Your task to perform on an android device: turn on notifications settings in the gmail app Image 0: 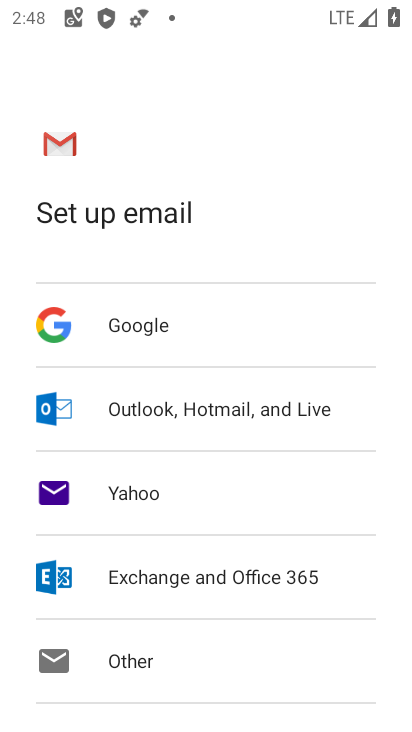
Step 0: press back button
Your task to perform on an android device: turn on notifications settings in the gmail app Image 1: 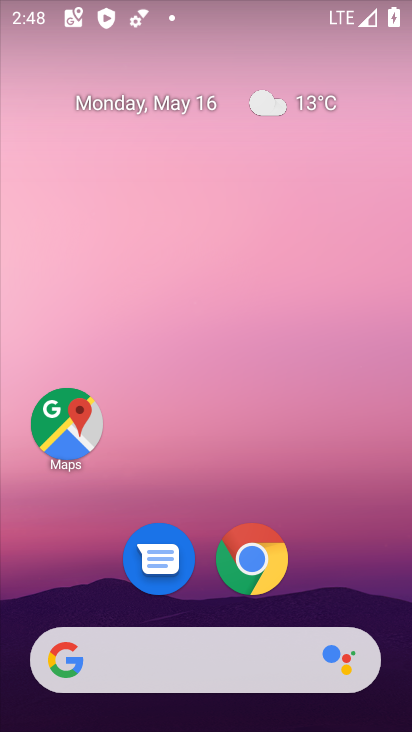
Step 1: drag from (201, 613) to (300, 40)
Your task to perform on an android device: turn on notifications settings in the gmail app Image 2: 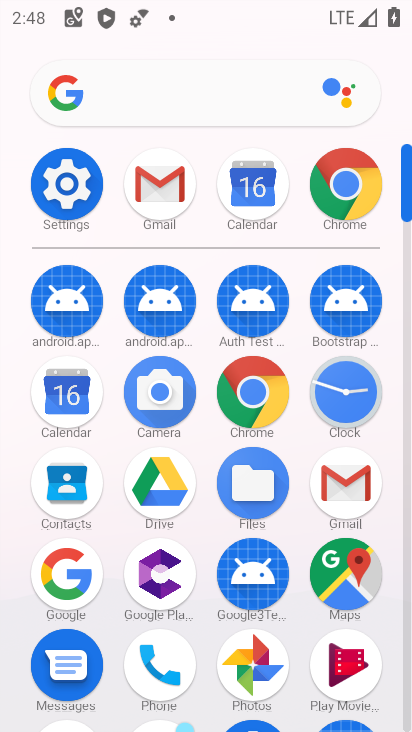
Step 2: click (166, 179)
Your task to perform on an android device: turn on notifications settings in the gmail app Image 3: 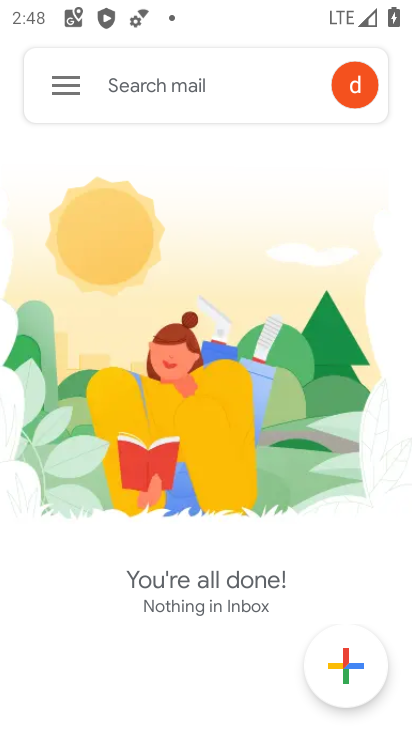
Step 3: press back button
Your task to perform on an android device: turn on notifications settings in the gmail app Image 4: 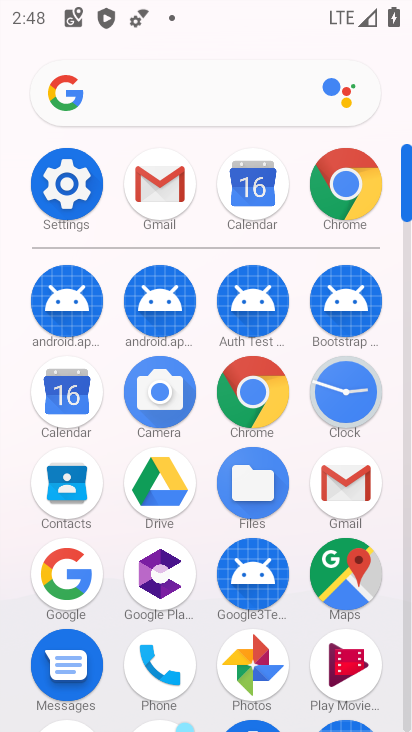
Step 4: click (158, 187)
Your task to perform on an android device: turn on notifications settings in the gmail app Image 5: 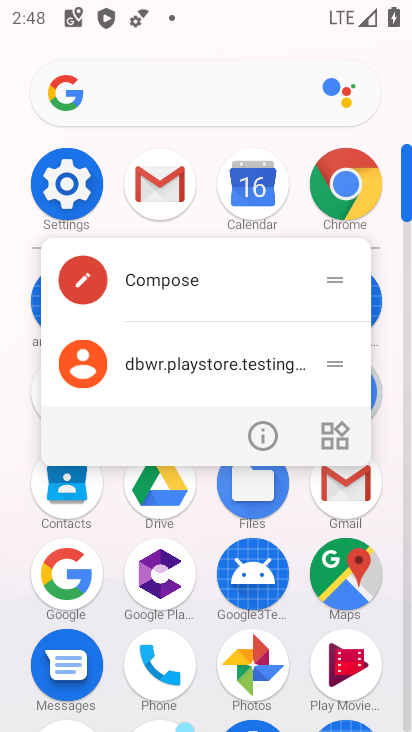
Step 5: click (259, 431)
Your task to perform on an android device: turn on notifications settings in the gmail app Image 6: 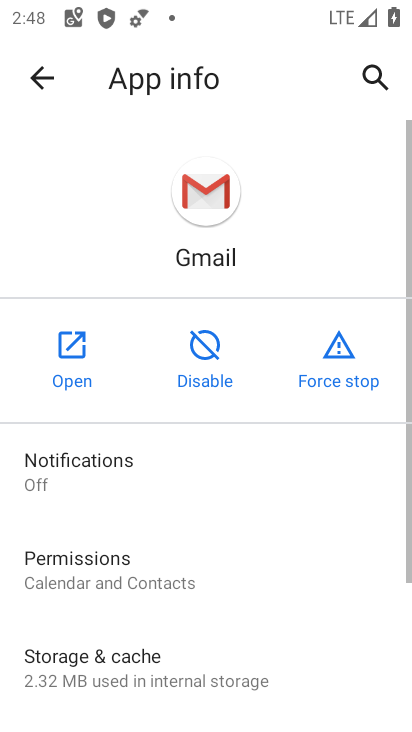
Step 6: click (67, 484)
Your task to perform on an android device: turn on notifications settings in the gmail app Image 7: 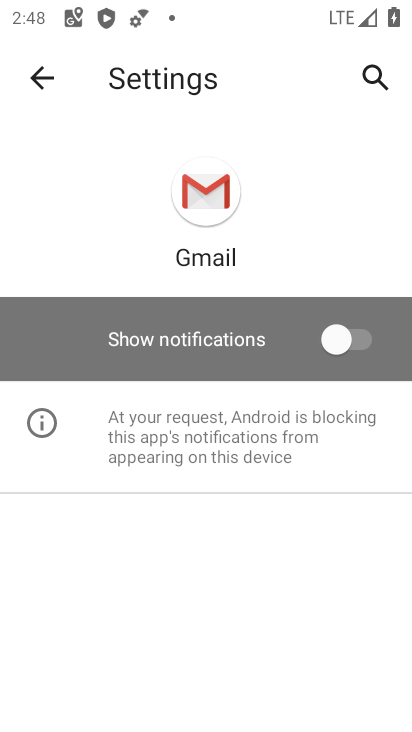
Step 7: click (353, 348)
Your task to perform on an android device: turn on notifications settings in the gmail app Image 8: 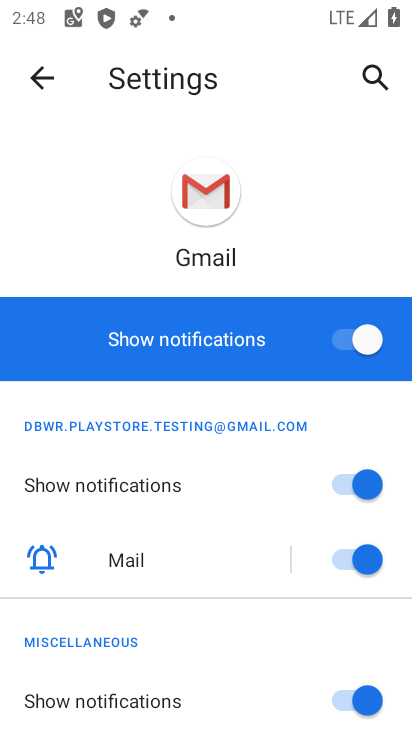
Step 8: task complete